Your task to perform on an android device: Open Google Chrome and click the shortcut for Amazon.com Image 0: 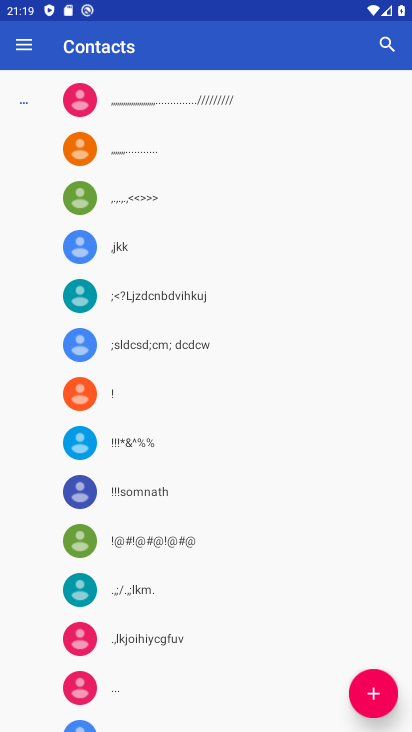
Step 0: press home button
Your task to perform on an android device: Open Google Chrome and click the shortcut for Amazon.com Image 1: 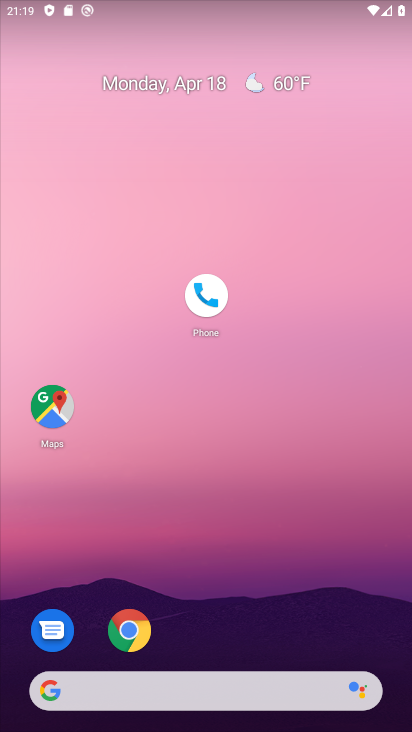
Step 1: drag from (327, 582) to (357, 66)
Your task to perform on an android device: Open Google Chrome and click the shortcut for Amazon.com Image 2: 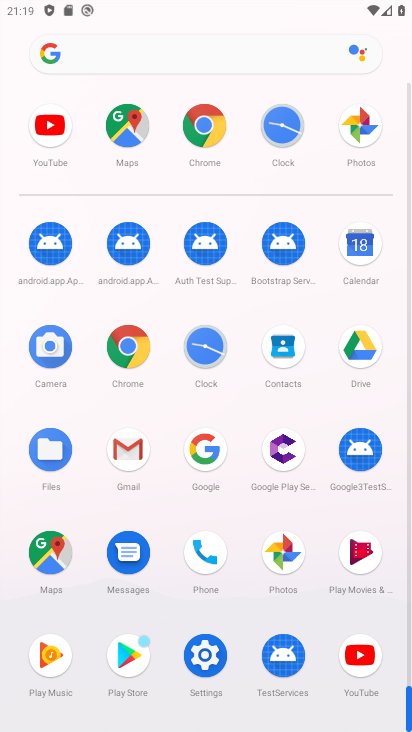
Step 2: click (132, 347)
Your task to perform on an android device: Open Google Chrome and click the shortcut for Amazon.com Image 3: 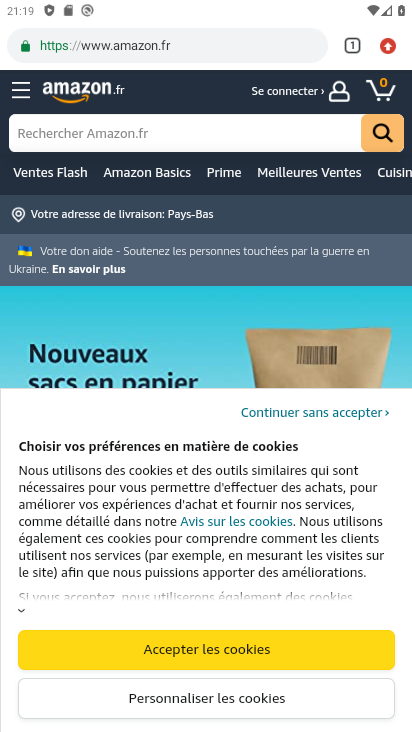
Step 3: click (403, 48)
Your task to perform on an android device: Open Google Chrome and click the shortcut for Amazon.com Image 4: 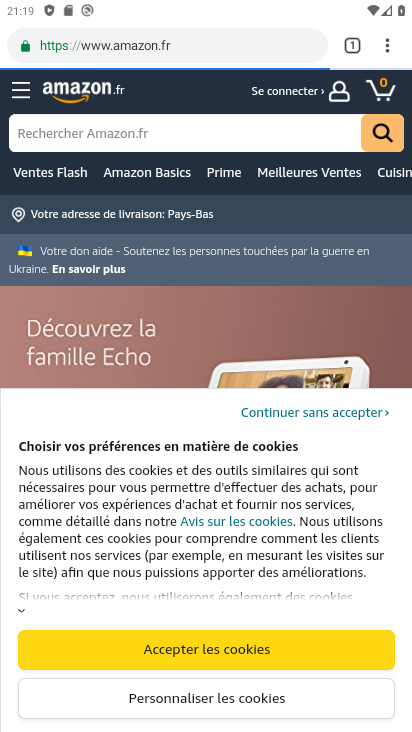
Step 4: click (391, 46)
Your task to perform on an android device: Open Google Chrome and click the shortcut for Amazon.com Image 5: 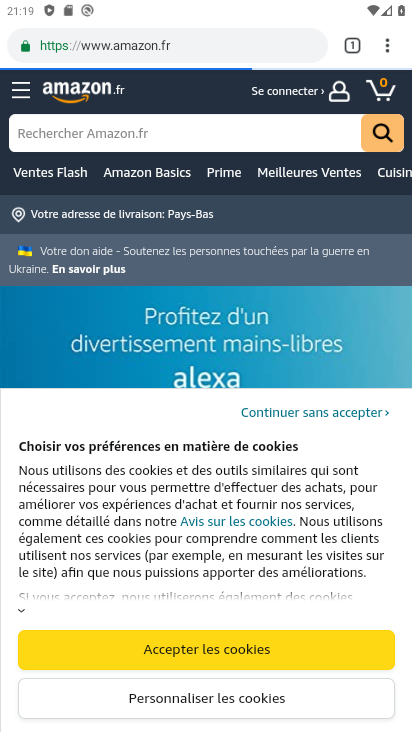
Step 5: click (389, 43)
Your task to perform on an android device: Open Google Chrome and click the shortcut for Amazon.com Image 6: 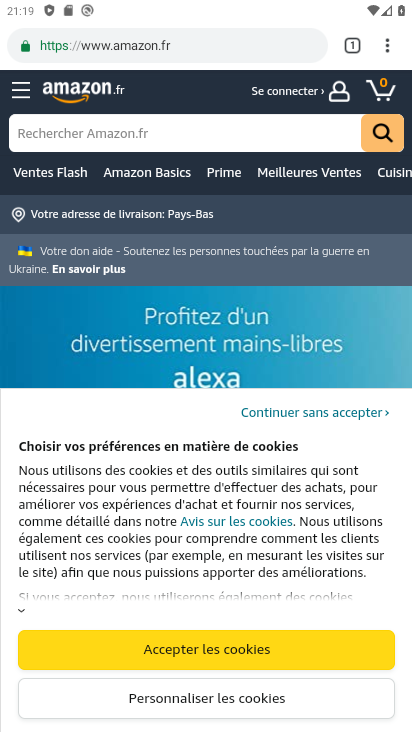
Step 6: drag from (386, 45) to (229, 141)
Your task to perform on an android device: Open Google Chrome and click the shortcut for Amazon.com Image 7: 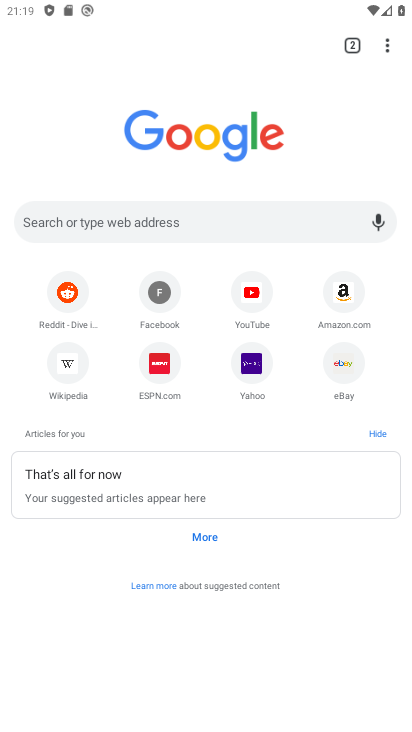
Step 7: click (341, 293)
Your task to perform on an android device: Open Google Chrome and click the shortcut for Amazon.com Image 8: 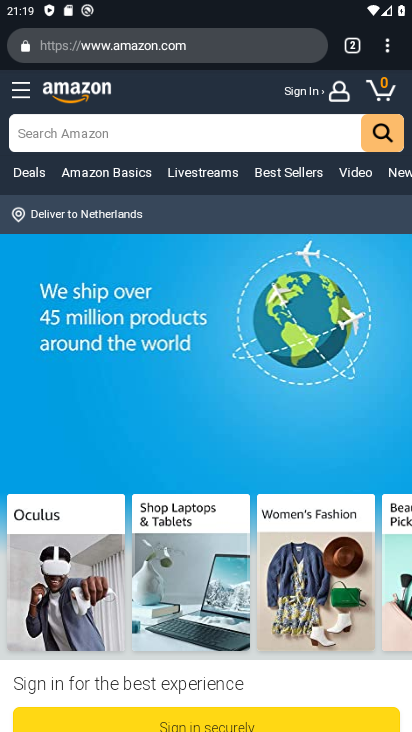
Step 8: task complete